Your task to perform on an android device: Open Google Chrome and open the bookmarks view Image 0: 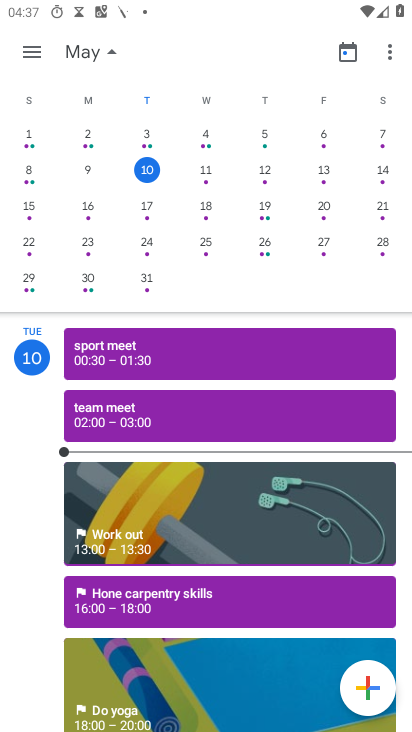
Step 0: press home button
Your task to perform on an android device: Open Google Chrome and open the bookmarks view Image 1: 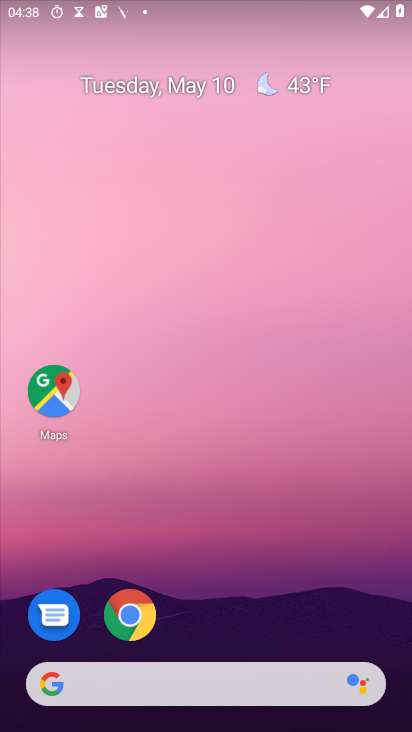
Step 1: drag from (326, 630) to (321, 140)
Your task to perform on an android device: Open Google Chrome and open the bookmarks view Image 2: 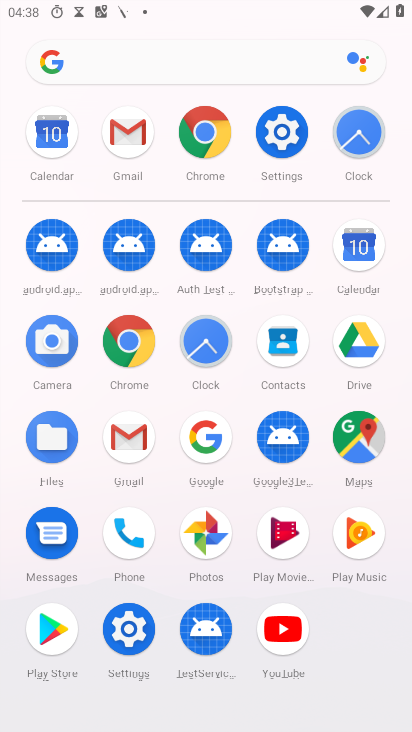
Step 2: click (141, 350)
Your task to perform on an android device: Open Google Chrome and open the bookmarks view Image 3: 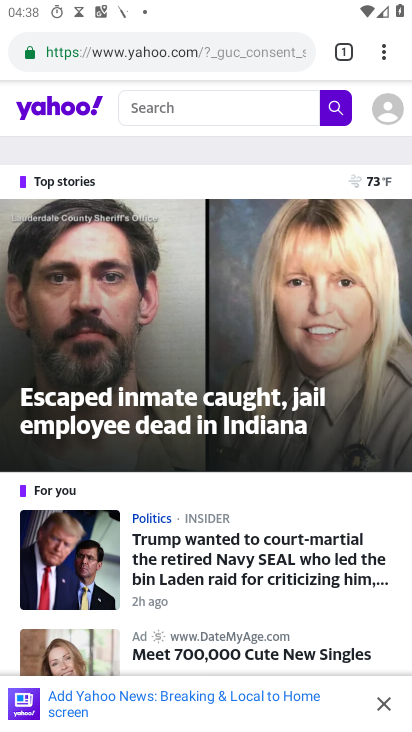
Step 3: task complete